Your task to perform on an android device: turn on bluetooth scan Image 0: 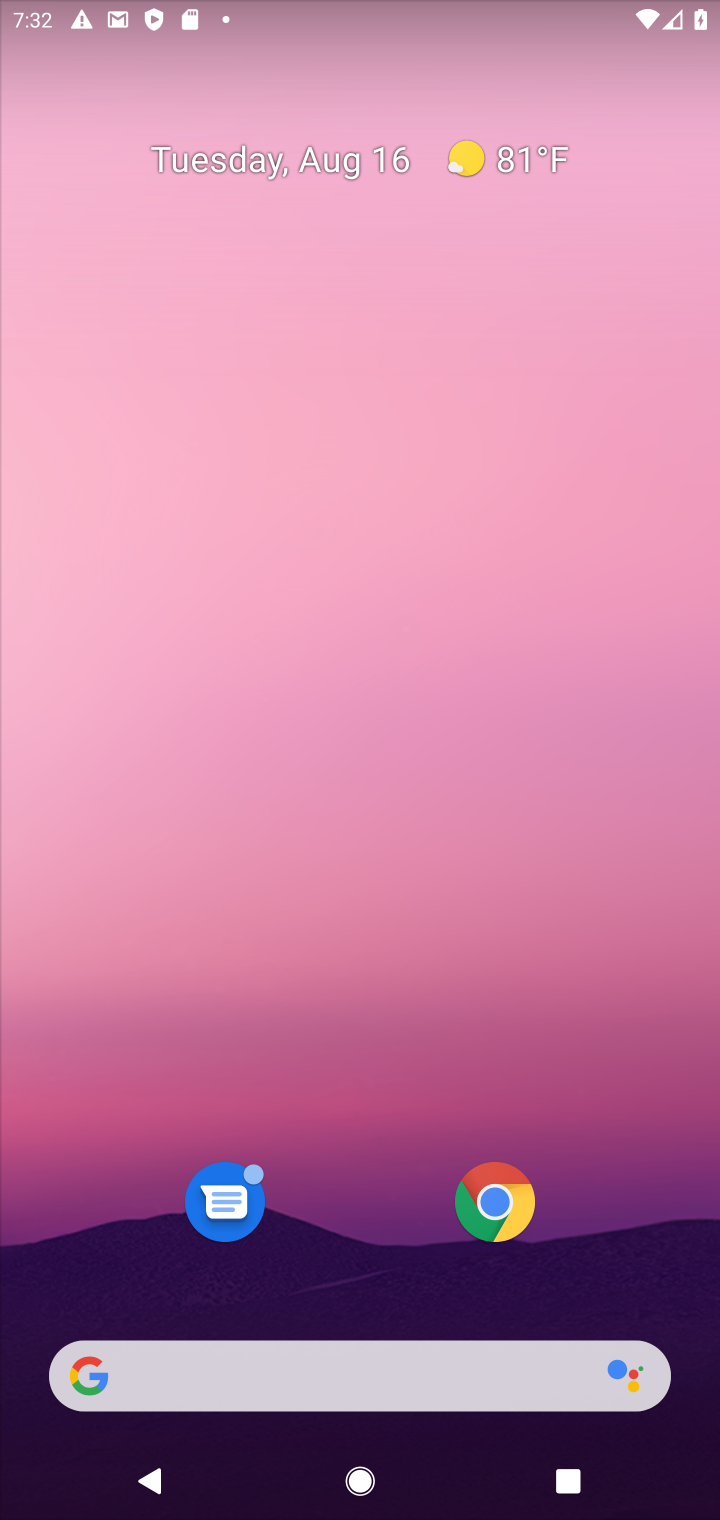
Step 0: drag from (367, 1308) to (163, 224)
Your task to perform on an android device: turn on bluetooth scan Image 1: 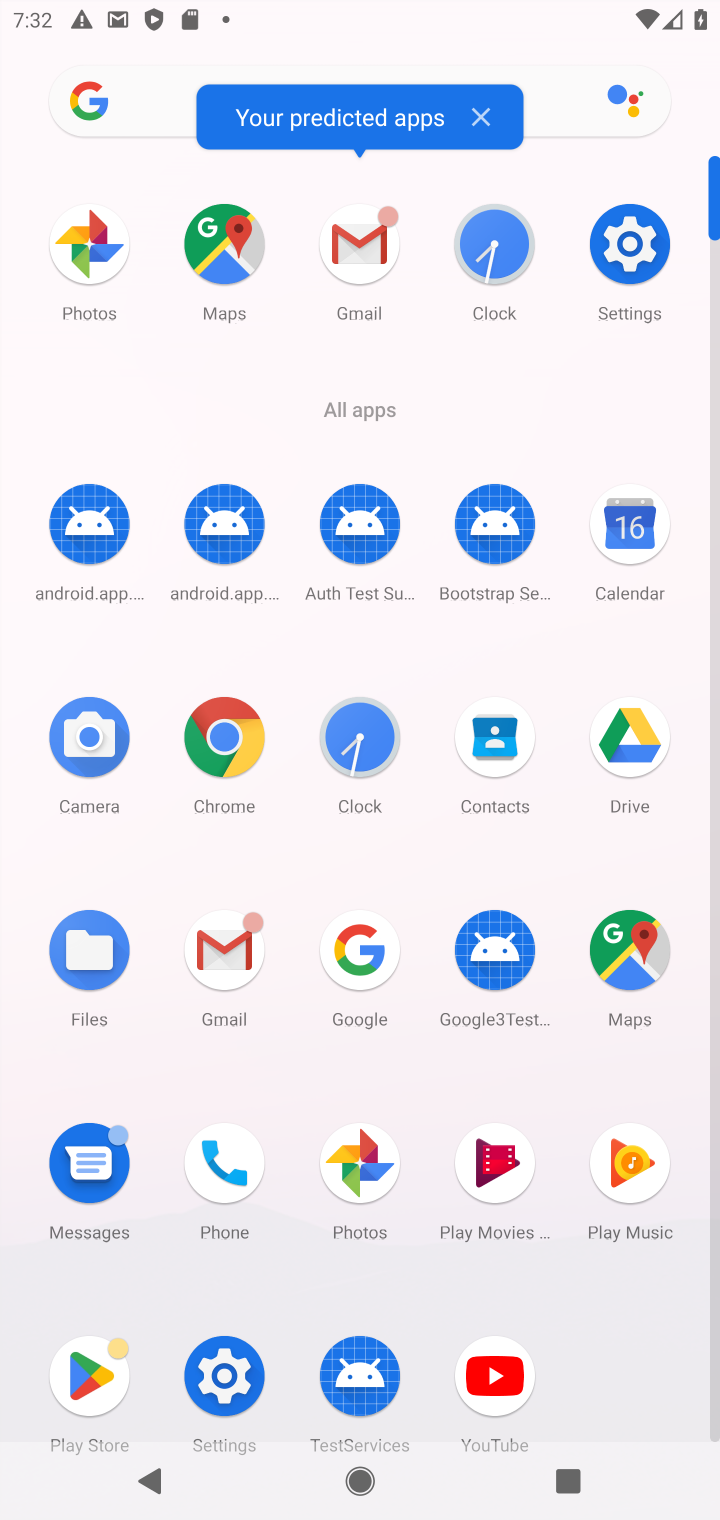
Step 1: click (585, 272)
Your task to perform on an android device: turn on bluetooth scan Image 2: 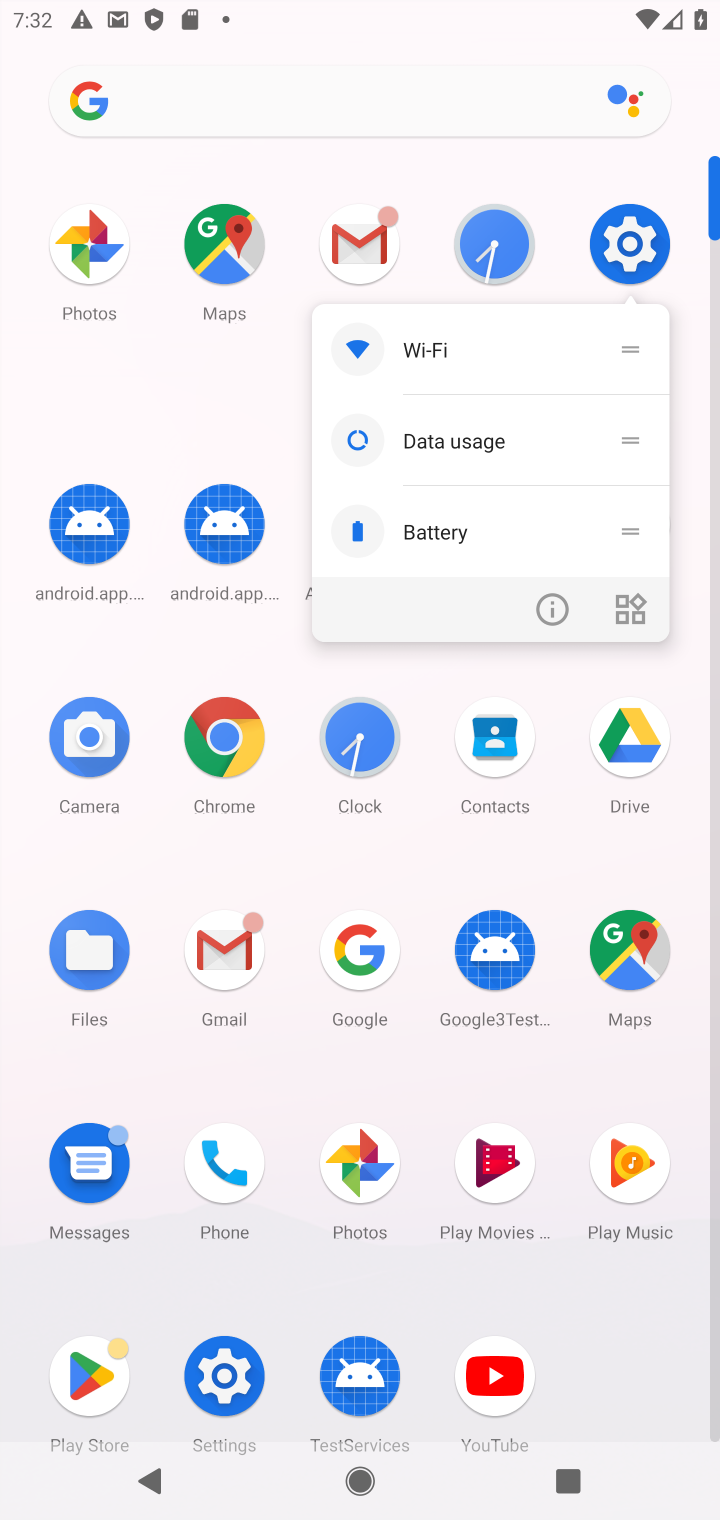
Step 2: click (597, 267)
Your task to perform on an android device: turn on bluetooth scan Image 3: 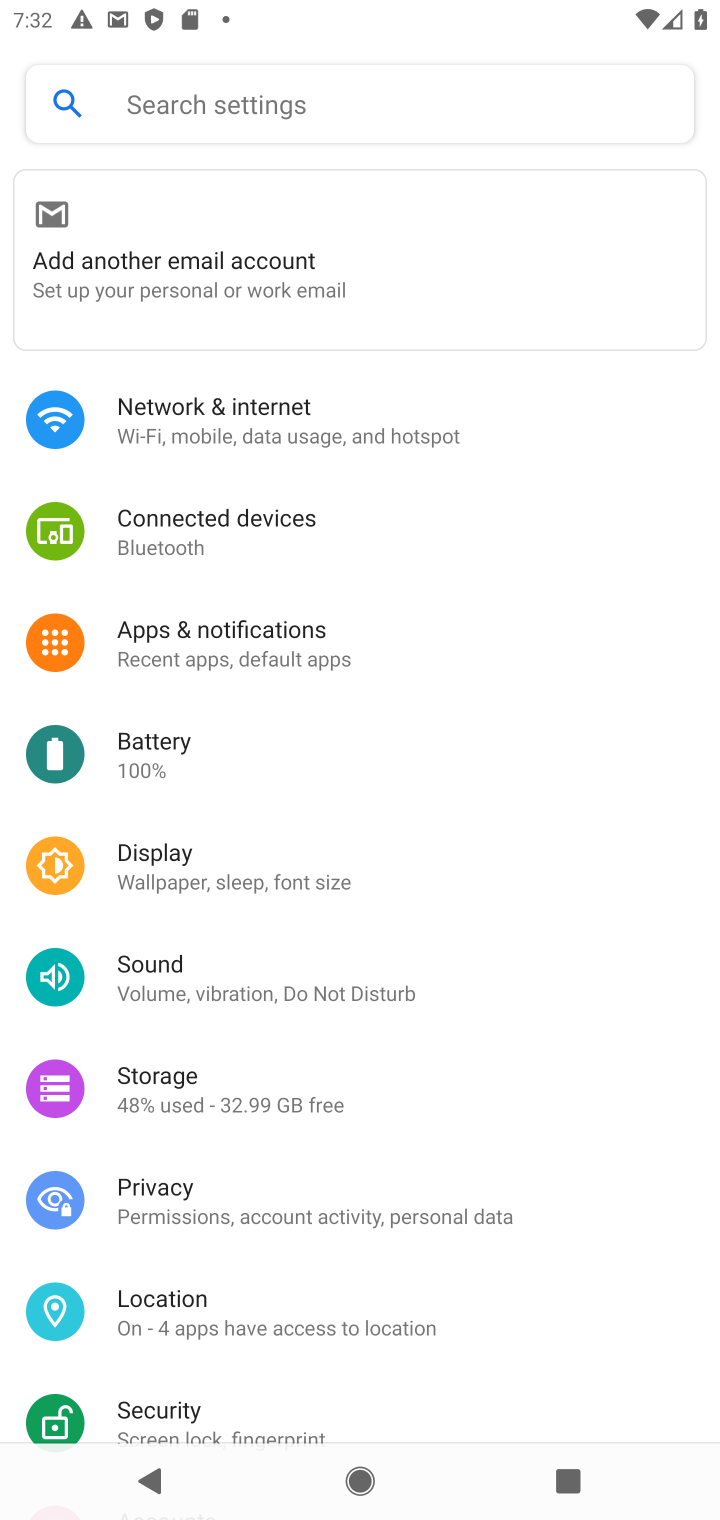
Step 3: click (253, 1298)
Your task to perform on an android device: turn on bluetooth scan Image 4: 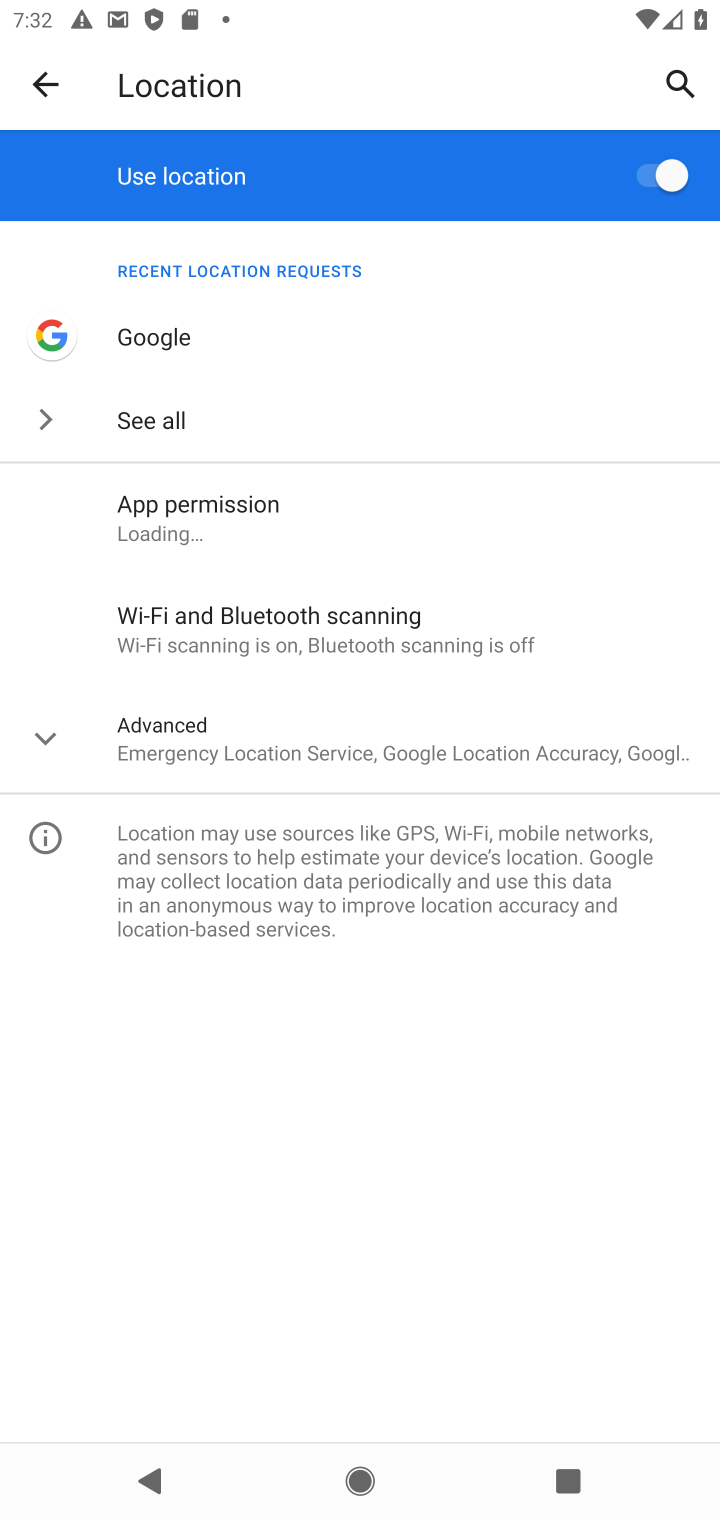
Step 4: click (268, 677)
Your task to perform on an android device: turn on bluetooth scan Image 5: 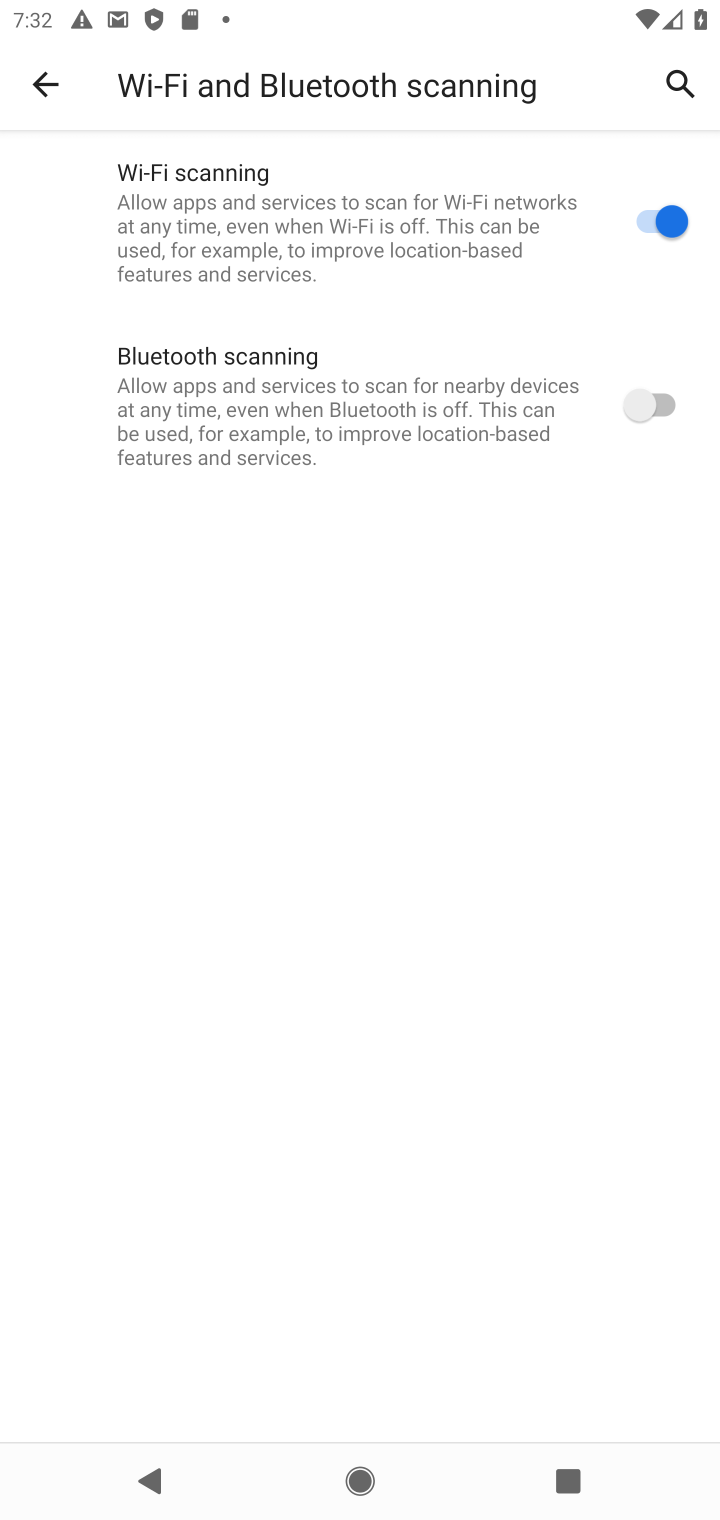
Step 5: click (624, 409)
Your task to perform on an android device: turn on bluetooth scan Image 6: 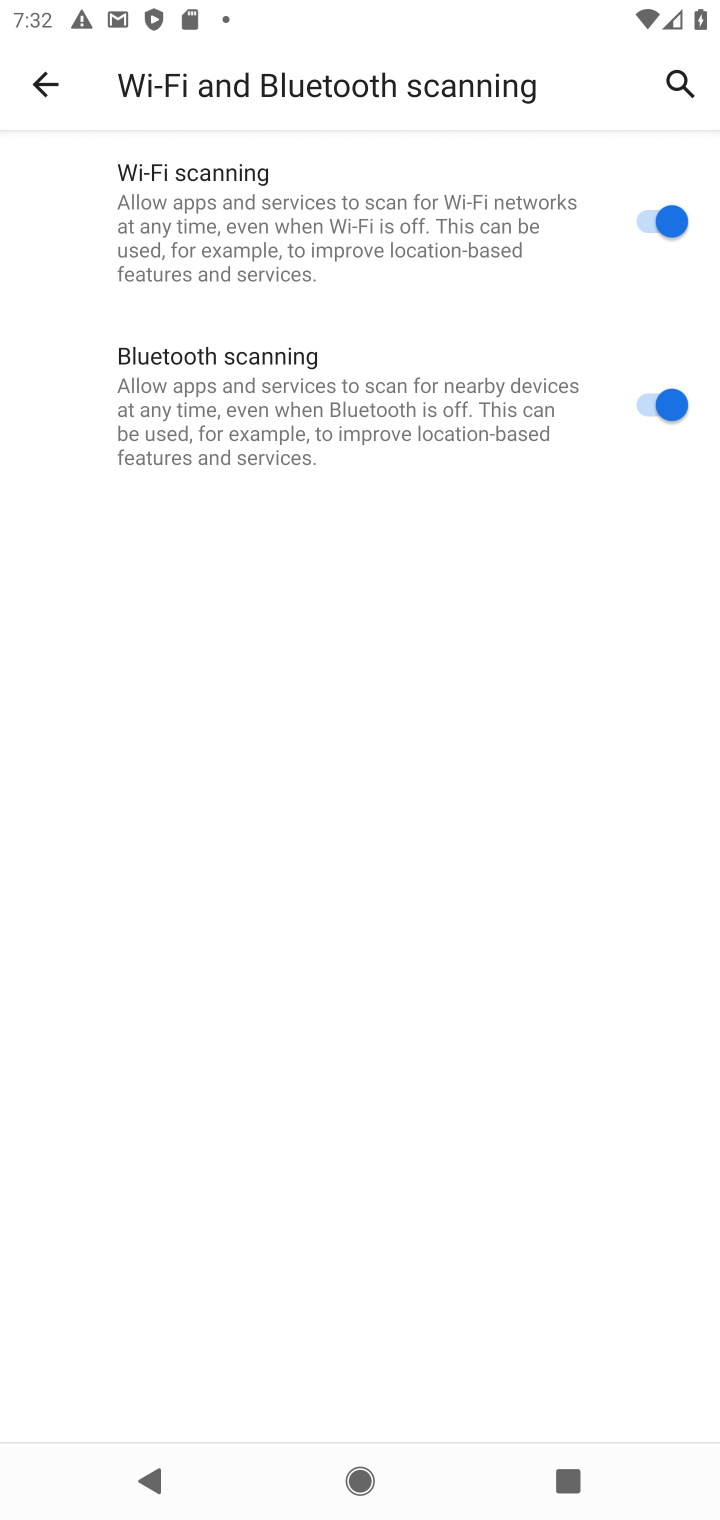
Step 6: task complete